Your task to perform on an android device: toggle data saver in the chrome app Image 0: 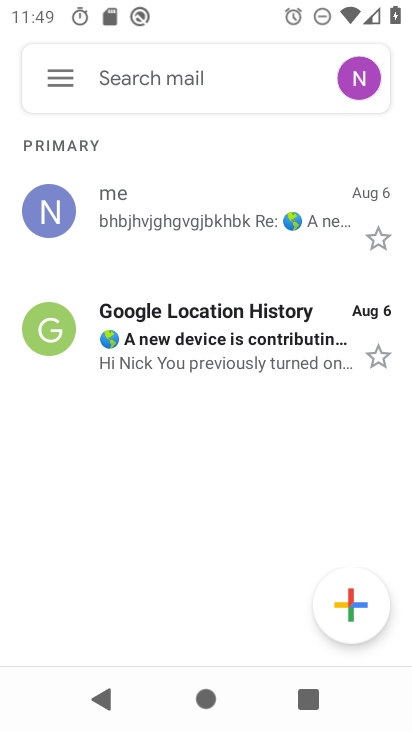
Step 0: press home button
Your task to perform on an android device: toggle data saver in the chrome app Image 1: 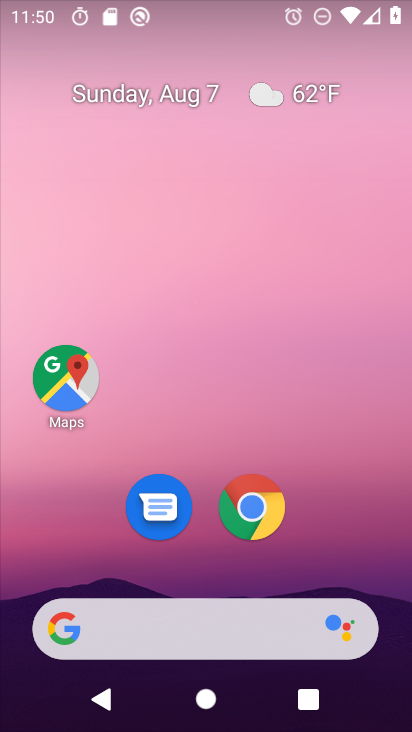
Step 1: drag from (354, 525) to (364, 102)
Your task to perform on an android device: toggle data saver in the chrome app Image 2: 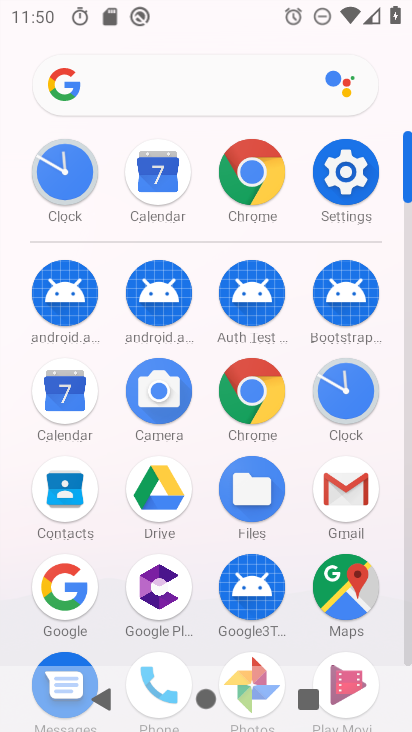
Step 2: click (252, 394)
Your task to perform on an android device: toggle data saver in the chrome app Image 3: 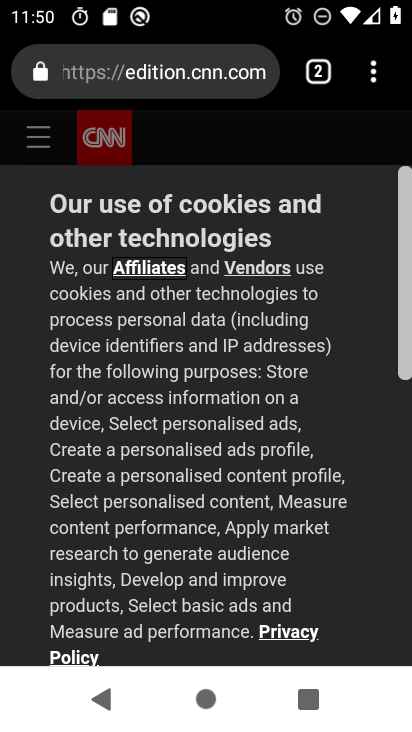
Step 3: drag from (378, 66) to (164, 501)
Your task to perform on an android device: toggle data saver in the chrome app Image 4: 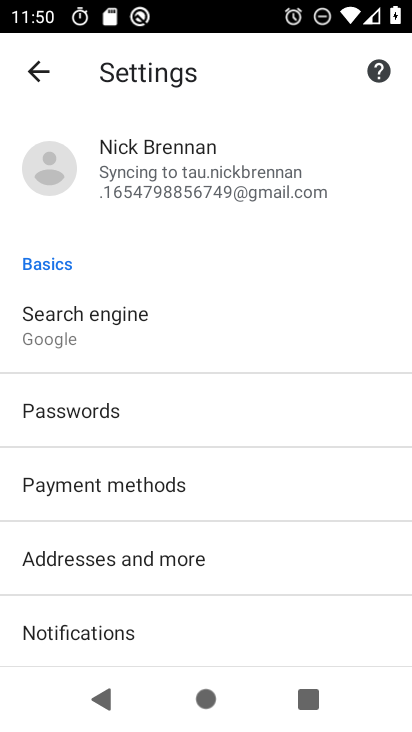
Step 4: drag from (299, 403) to (396, 41)
Your task to perform on an android device: toggle data saver in the chrome app Image 5: 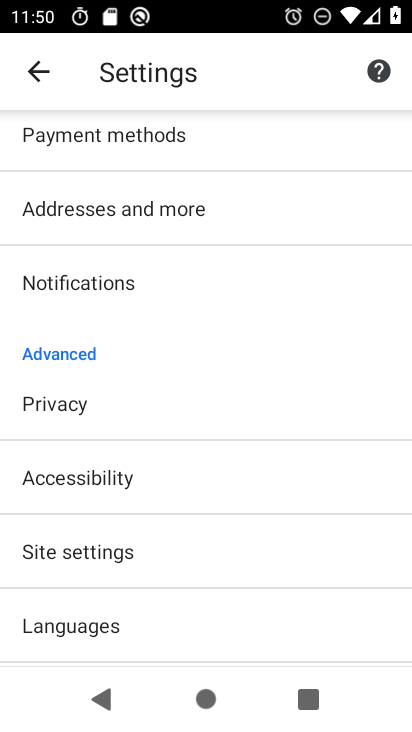
Step 5: drag from (198, 588) to (347, 213)
Your task to perform on an android device: toggle data saver in the chrome app Image 6: 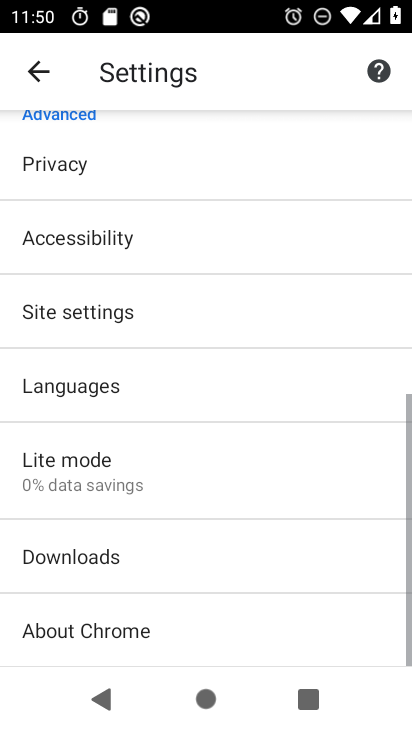
Step 6: click (93, 482)
Your task to perform on an android device: toggle data saver in the chrome app Image 7: 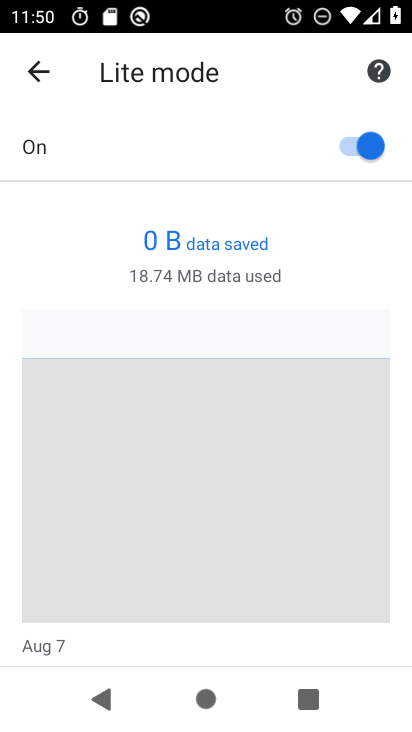
Step 7: click (361, 140)
Your task to perform on an android device: toggle data saver in the chrome app Image 8: 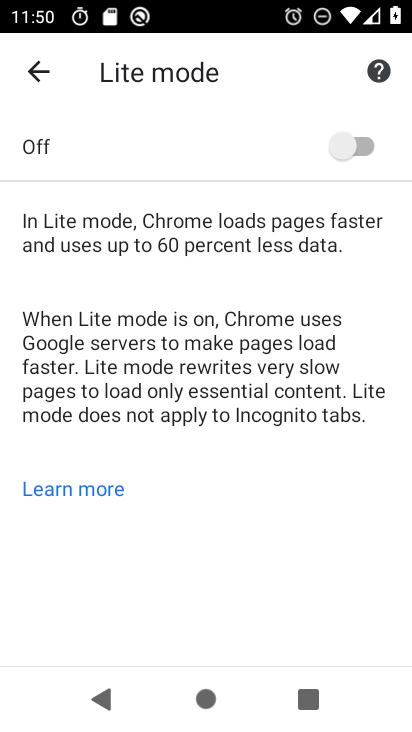
Step 8: task complete